Your task to perform on an android device: install app "TextNow: Call + Text Unlimited" Image 0: 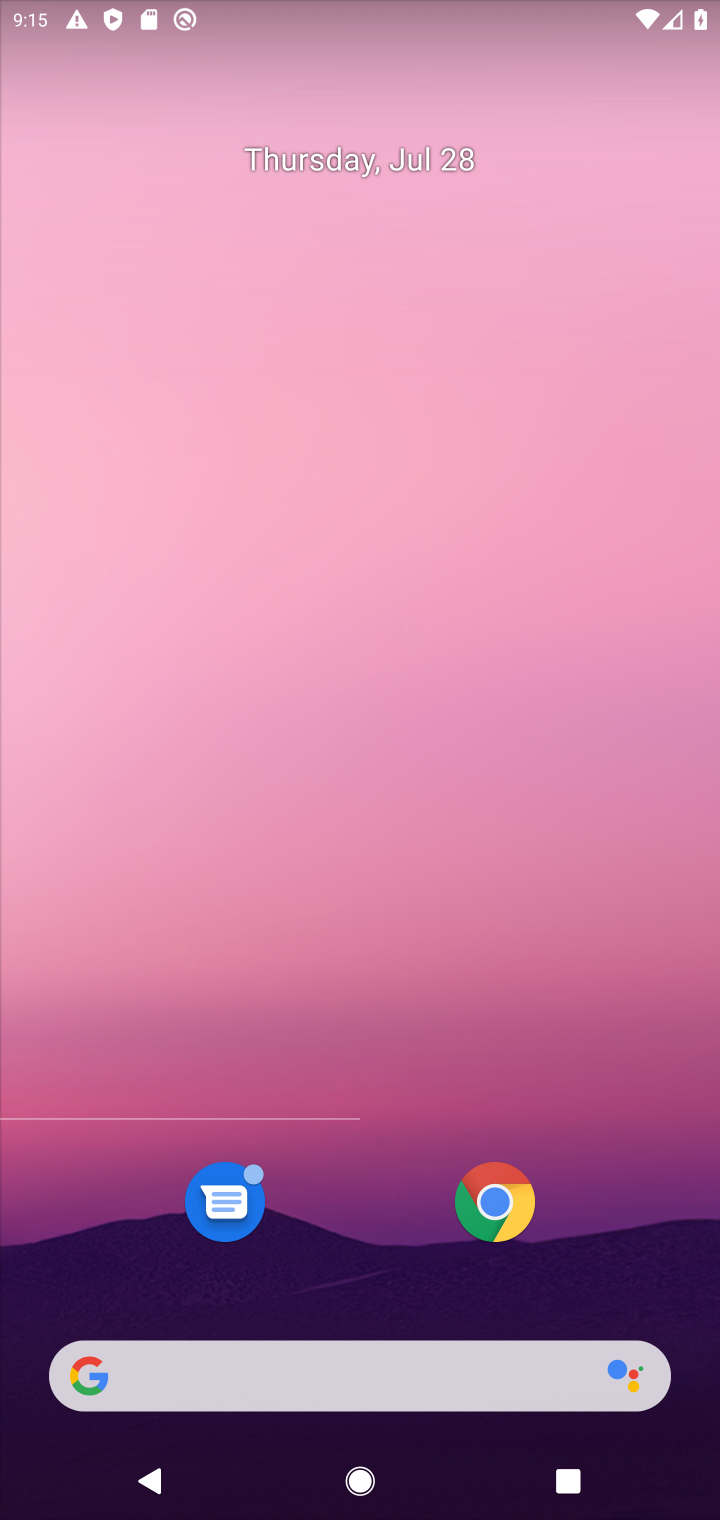
Step 0: press home button
Your task to perform on an android device: install app "TextNow: Call + Text Unlimited" Image 1: 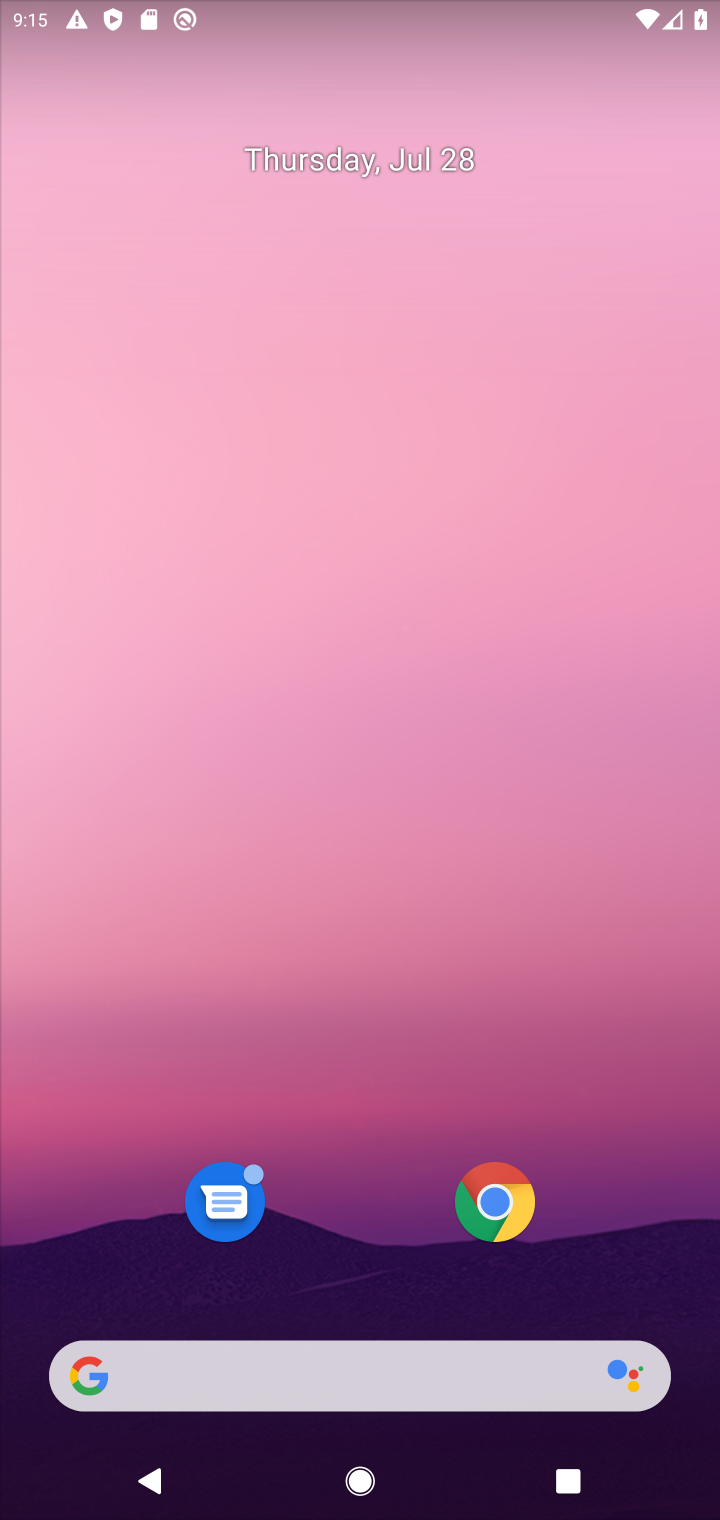
Step 1: drag from (345, 1388) to (711, 260)
Your task to perform on an android device: install app "TextNow: Call + Text Unlimited" Image 2: 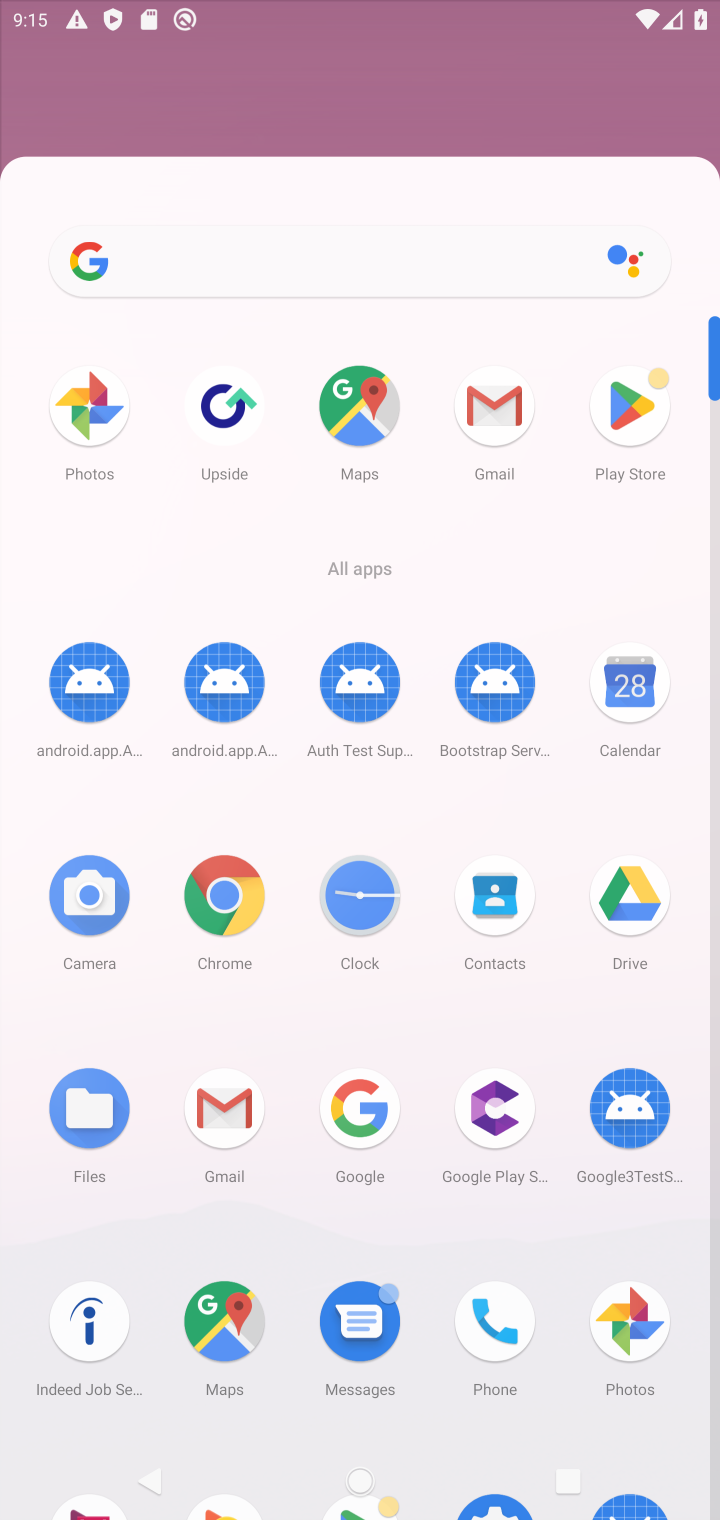
Step 2: click (618, 230)
Your task to perform on an android device: install app "TextNow: Call + Text Unlimited" Image 3: 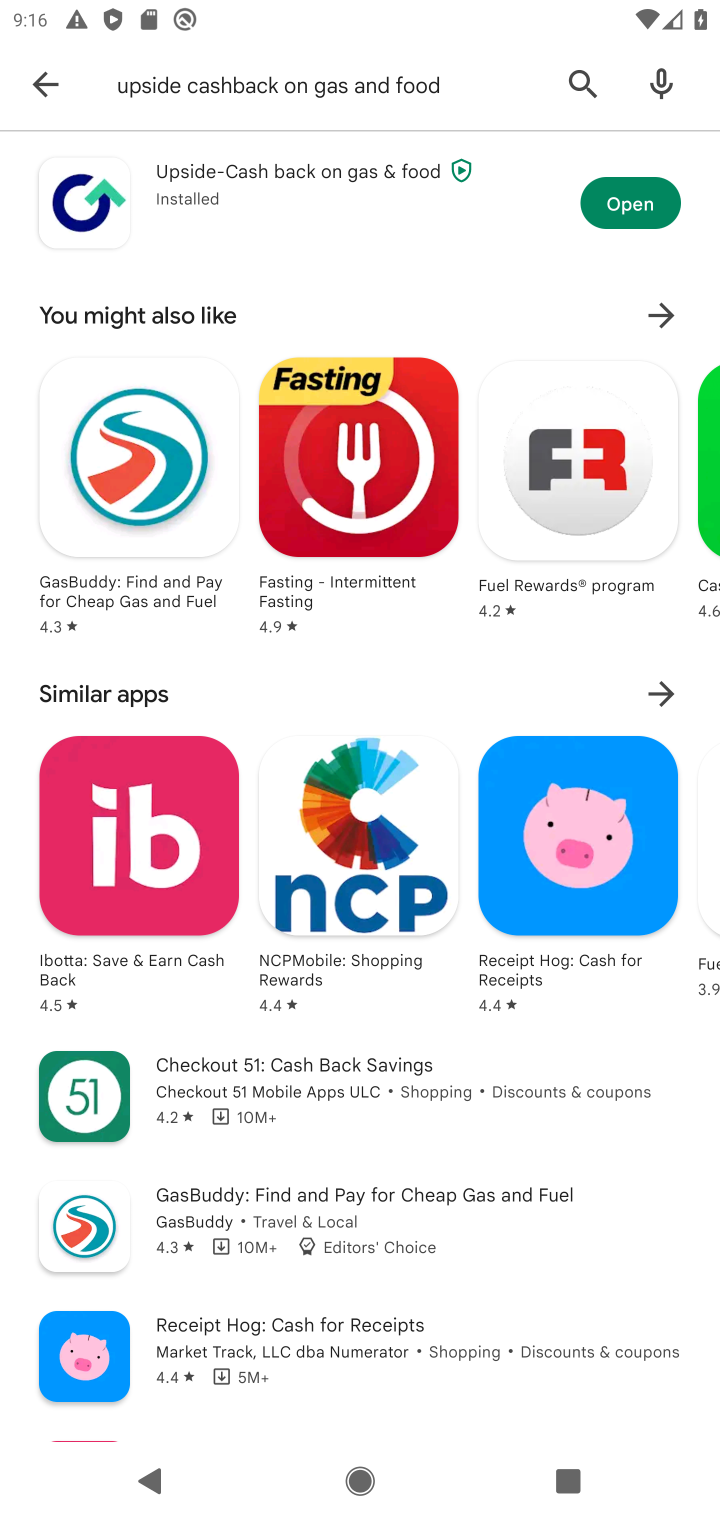
Step 3: click (586, 88)
Your task to perform on an android device: install app "TextNow: Call + Text Unlimited" Image 4: 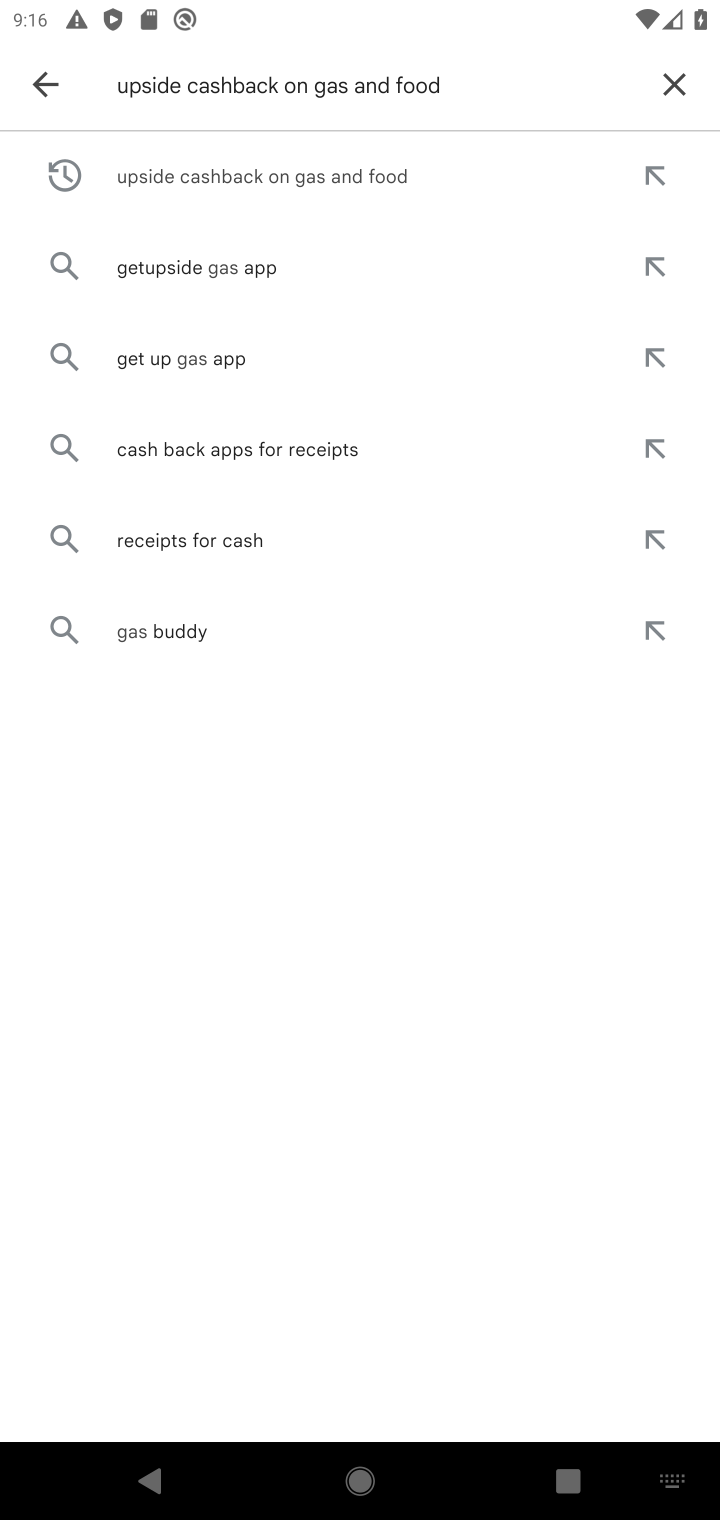
Step 4: click (670, 75)
Your task to perform on an android device: install app "TextNow: Call + Text Unlimited" Image 5: 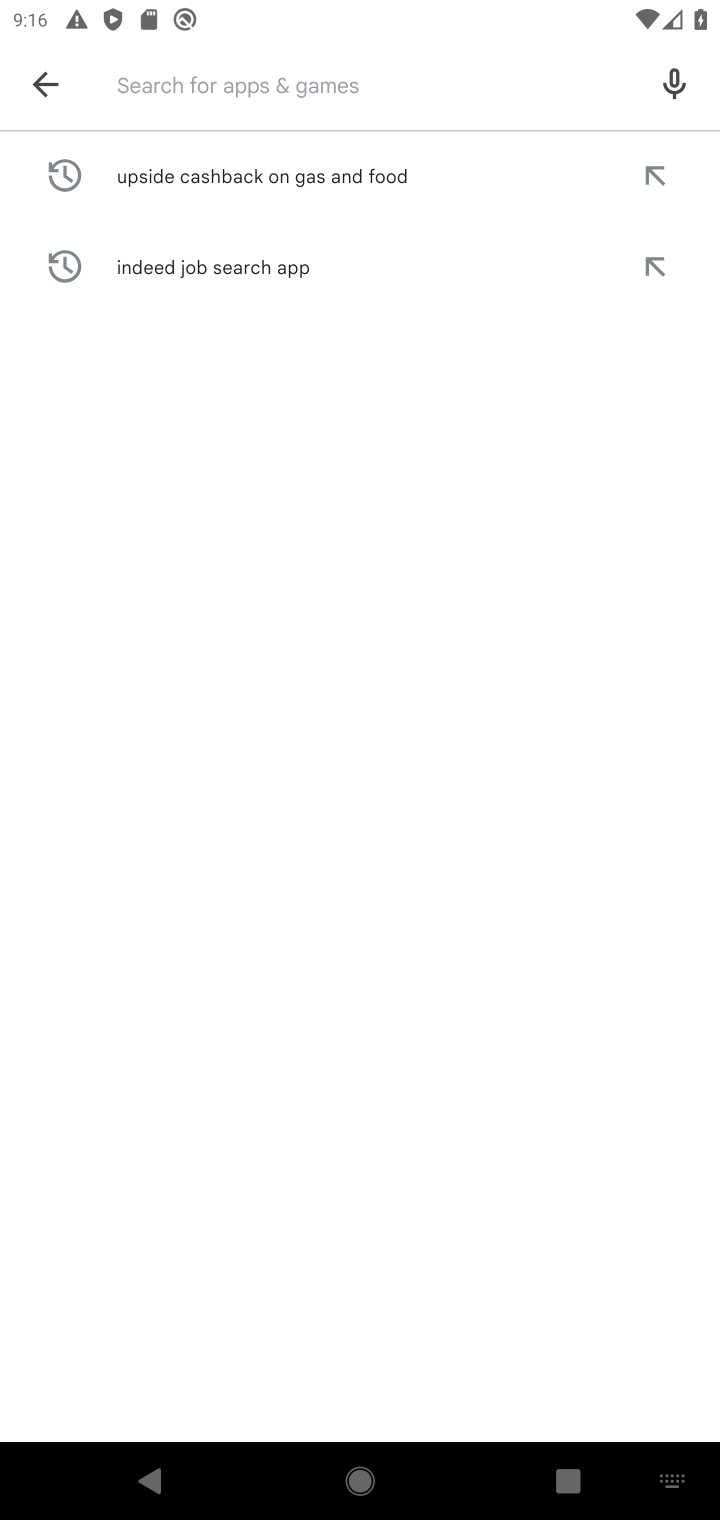
Step 5: type "textnow: call + text unlimited"
Your task to perform on an android device: install app "TextNow: Call + Text Unlimited" Image 6: 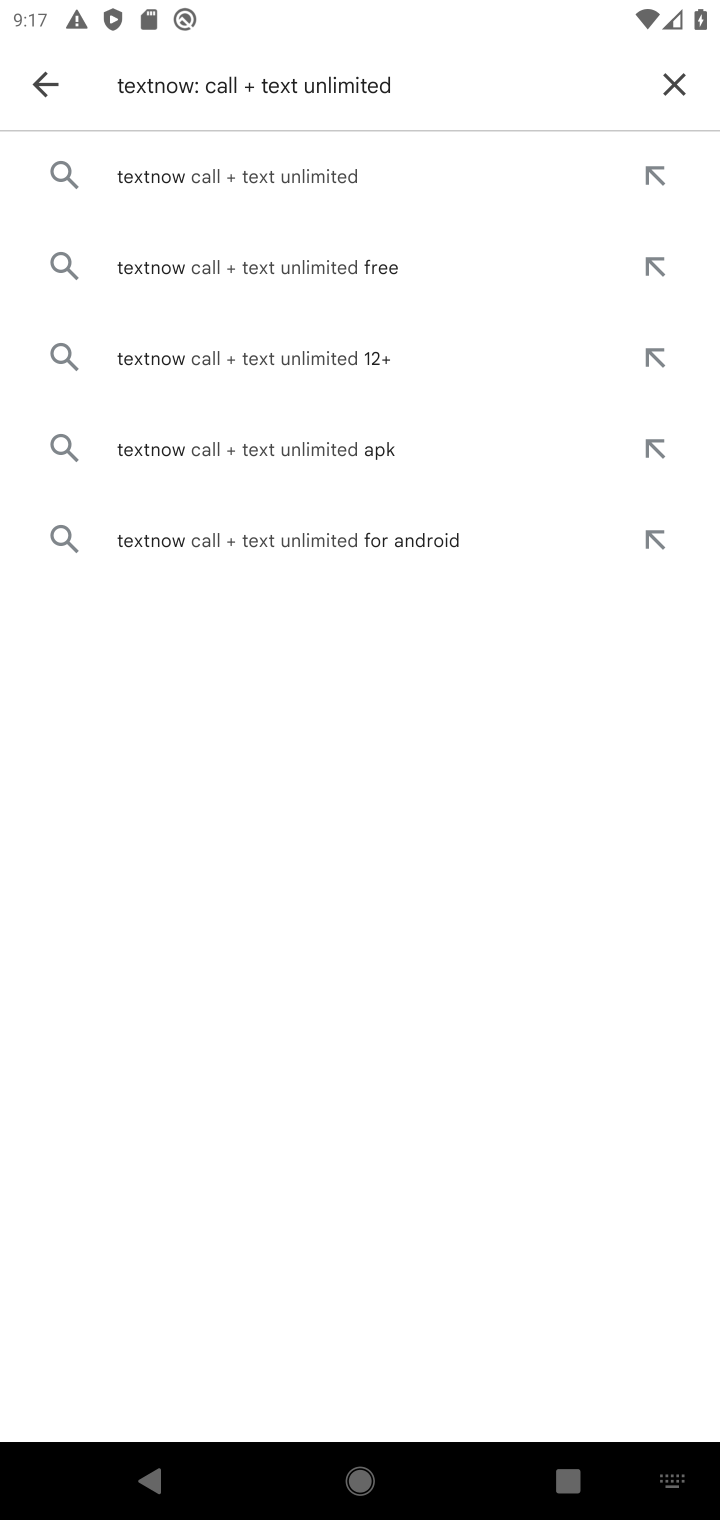
Step 6: click (132, 166)
Your task to perform on an android device: install app "TextNow: Call + Text Unlimited" Image 7: 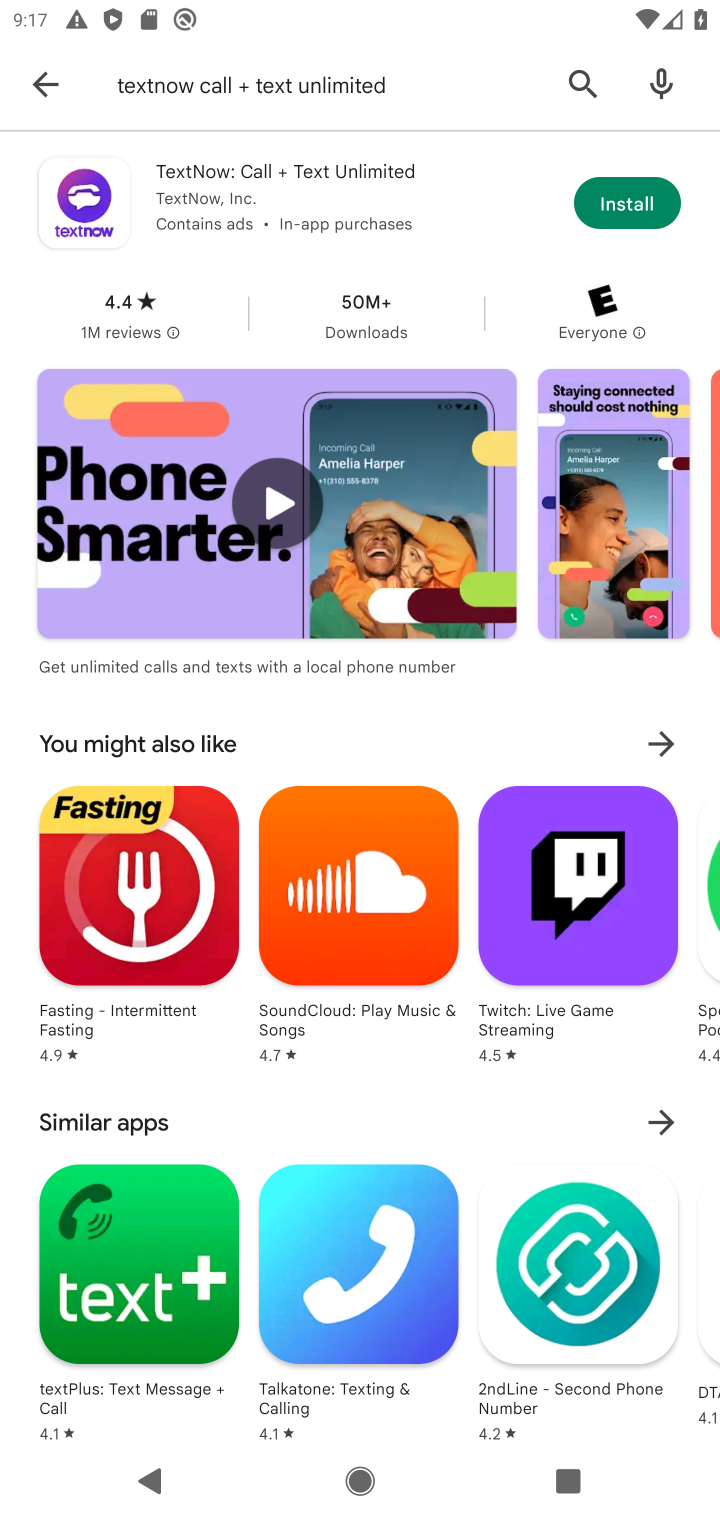
Step 7: click (667, 197)
Your task to perform on an android device: install app "TextNow: Call + Text Unlimited" Image 8: 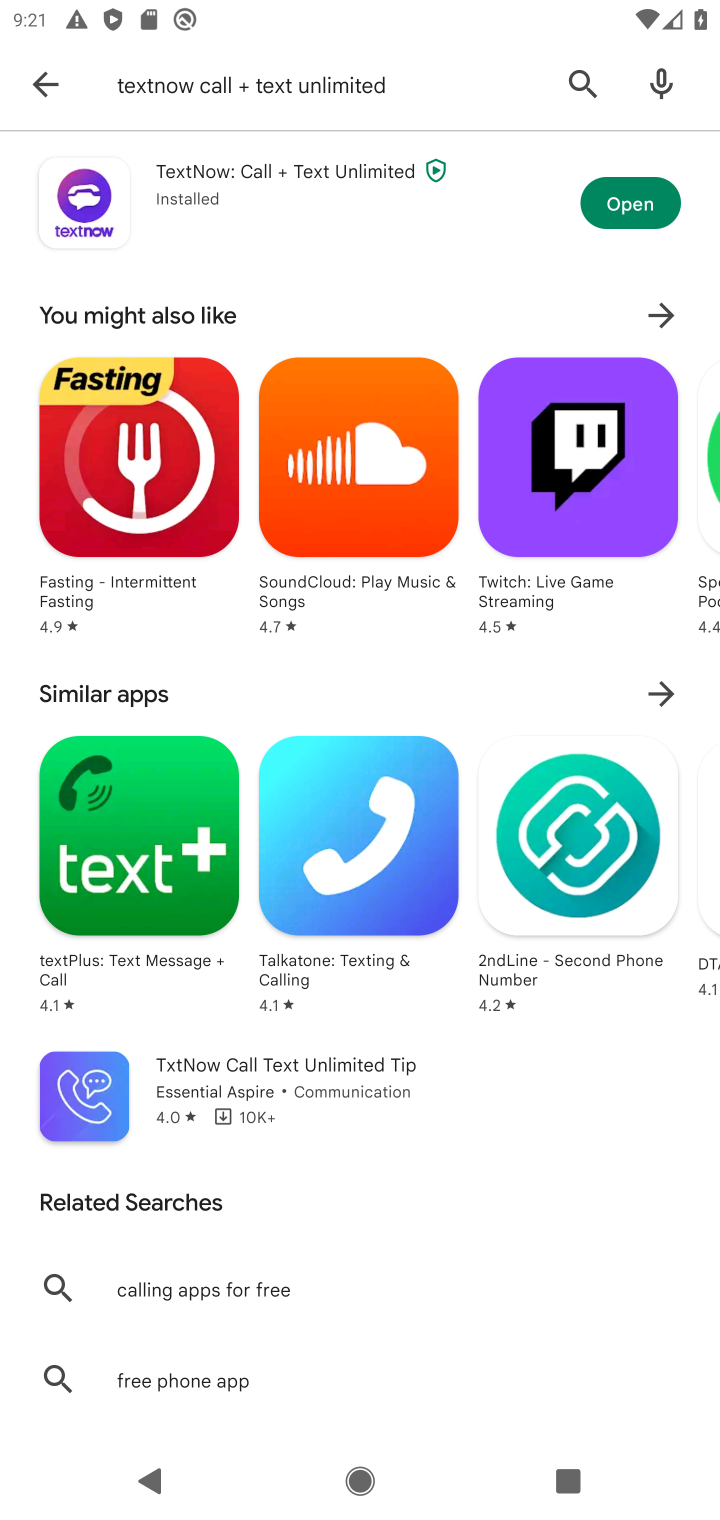
Step 8: task complete